Your task to perform on an android device: turn on improve location accuracy Image 0: 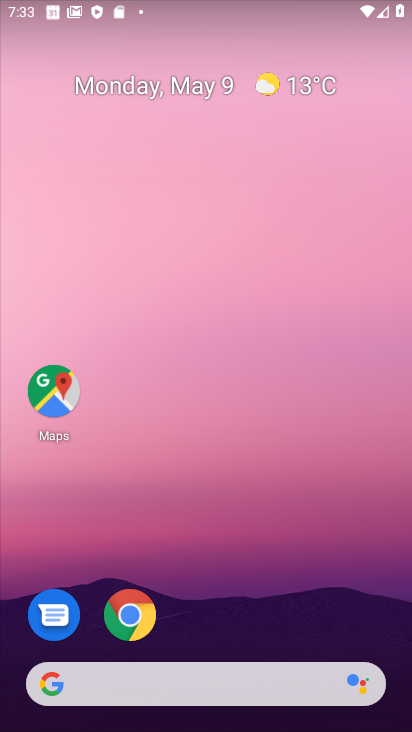
Step 0: drag from (215, 609) to (217, 19)
Your task to perform on an android device: turn on improve location accuracy Image 1: 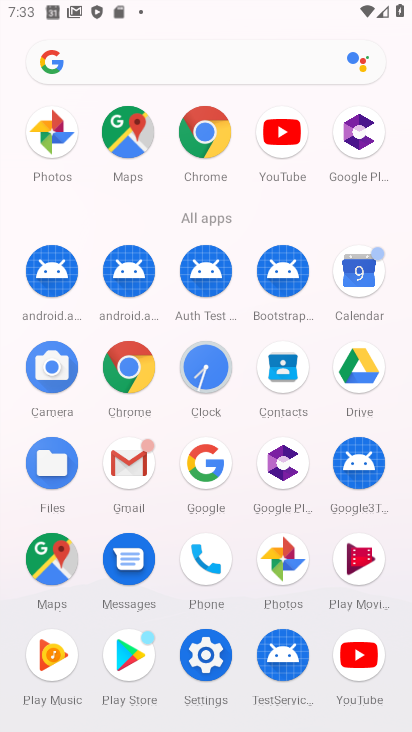
Step 1: click (209, 651)
Your task to perform on an android device: turn on improve location accuracy Image 2: 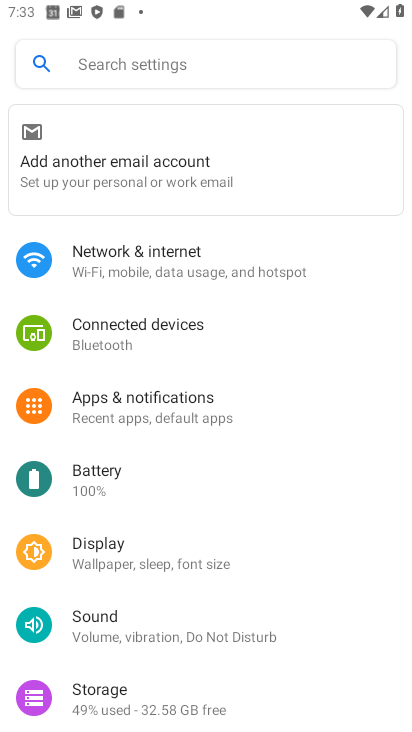
Step 2: drag from (209, 651) to (311, 34)
Your task to perform on an android device: turn on improve location accuracy Image 3: 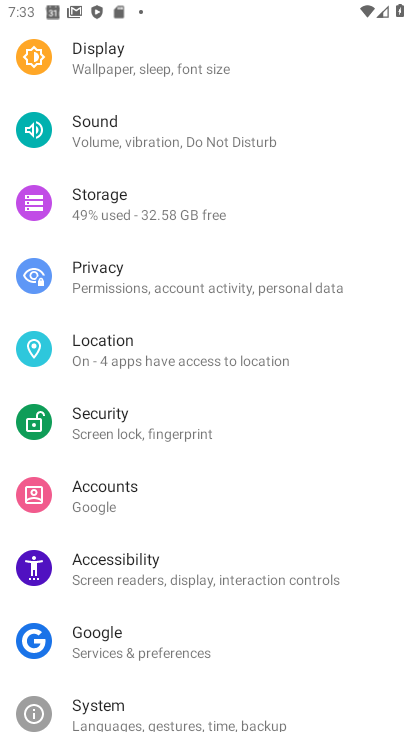
Step 3: click (105, 341)
Your task to perform on an android device: turn on improve location accuracy Image 4: 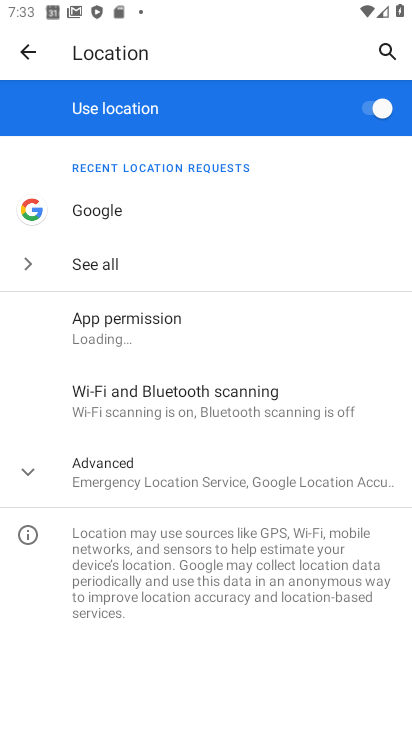
Step 4: click (103, 484)
Your task to perform on an android device: turn on improve location accuracy Image 5: 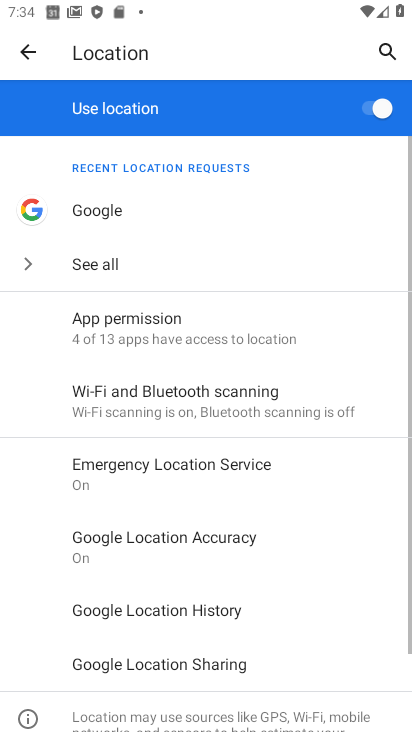
Step 5: click (152, 543)
Your task to perform on an android device: turn on improve location accuracy Image 6: 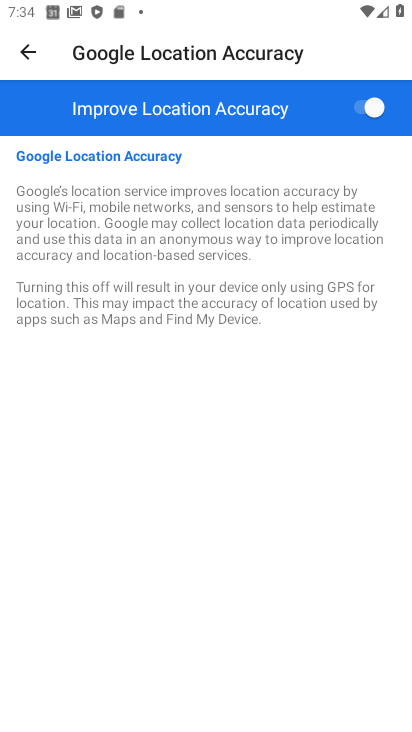
Step 6: task complete